Your task to perform on an android device: Open Wikipedia Image 0: 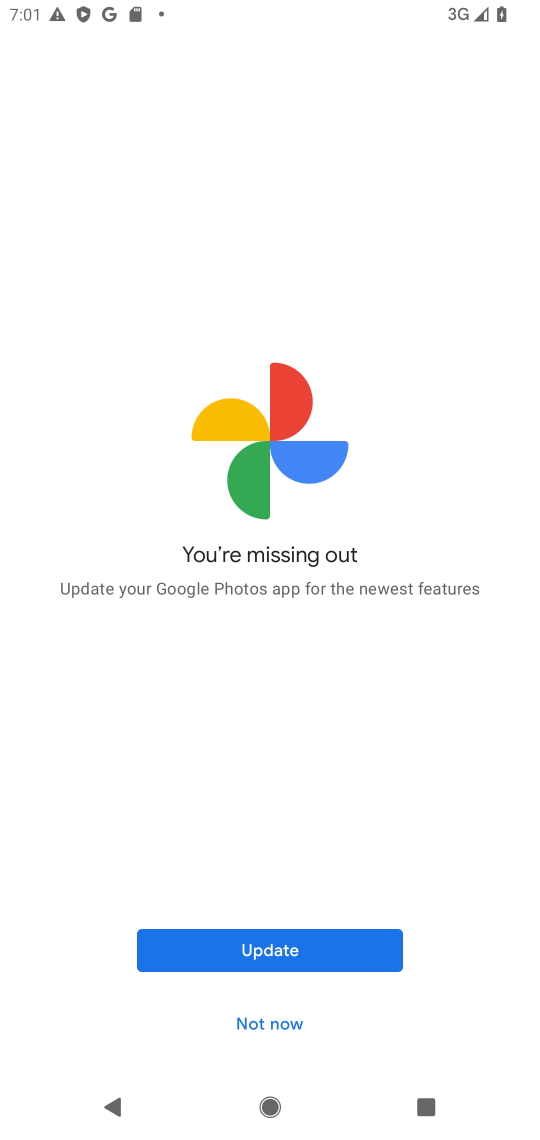
Step 0: press home button
Your task to perform on an android device: Open Wikipedia Image 1: 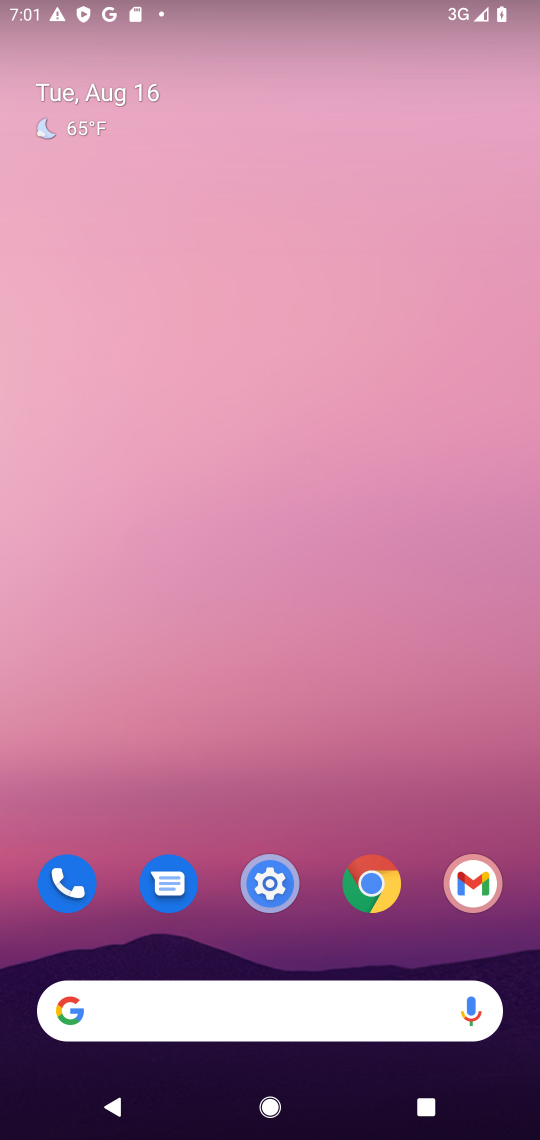
Step 1: click (373, 883)
Your task to perform on an android device: Open Wikipedia Image 2: 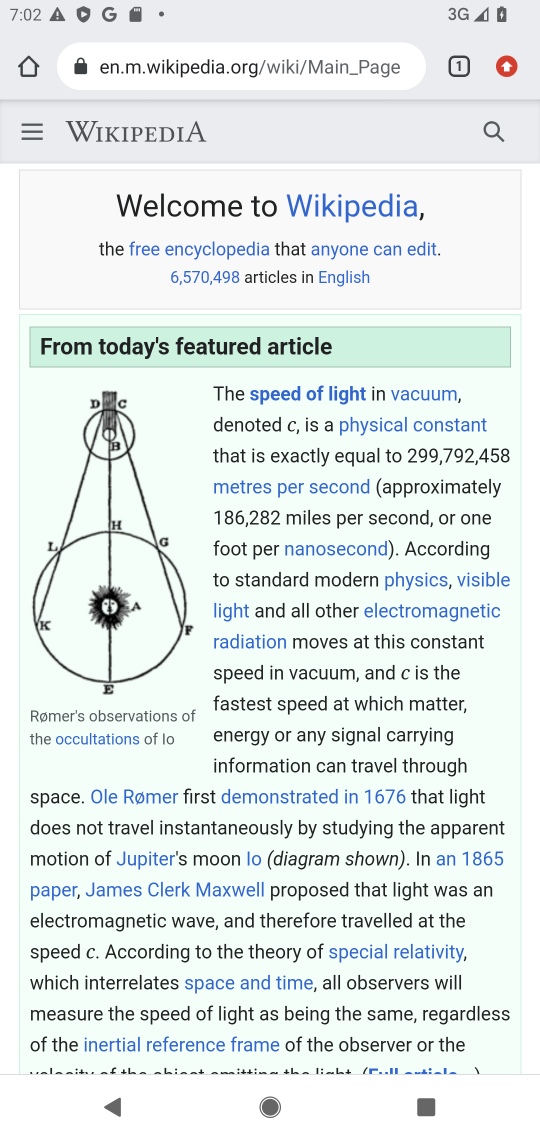
Step 2: task complete